Your task to perform on an android device: Open the calendar and show me this week's events? Image 0: 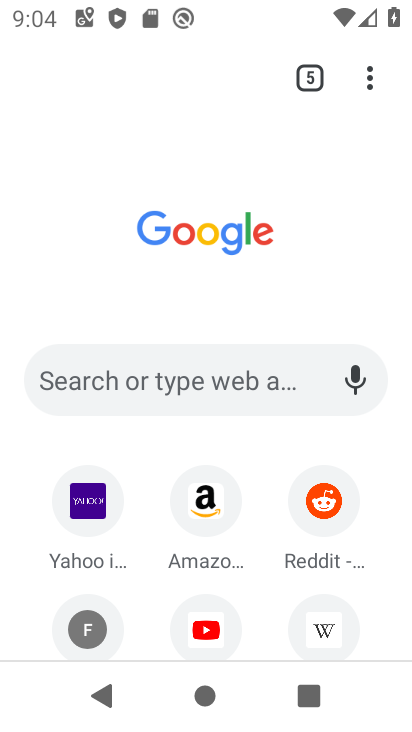
Step 0: press back button
Your task to perform on an android device: Open the calendar and show me this week's events? Image 1: 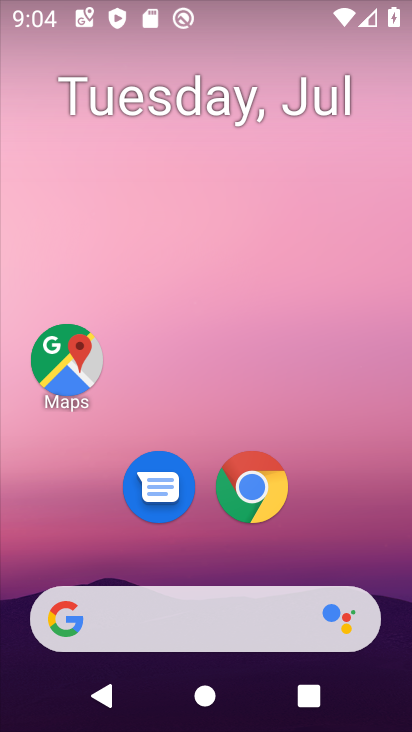
Step 1: drag from (179, 580) to (255, 37)
Your task to perform on an android device: Open the calendar and show me this week's events? Image 2: 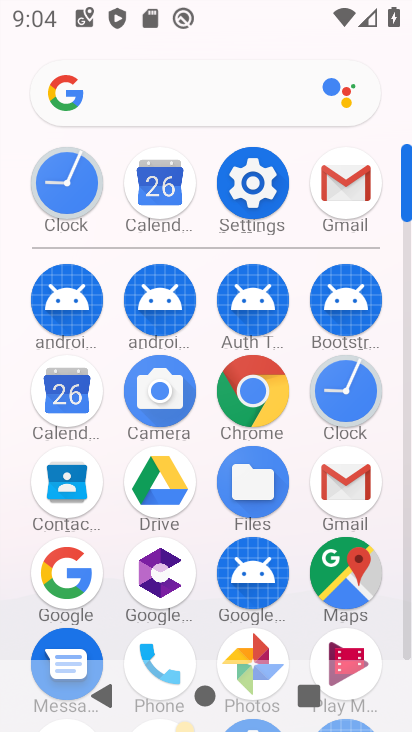
Step 2: click (48, 382)
Your task to perform on an android device: Open the calendar and show me this week's events? Image 3: 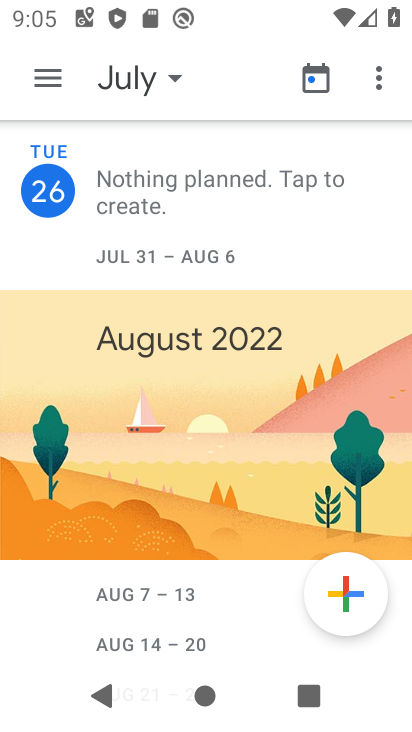
Step 3: click (176, 81)
Your task to perform on an android device: Open the calendar and show me this week's events? Image 4: 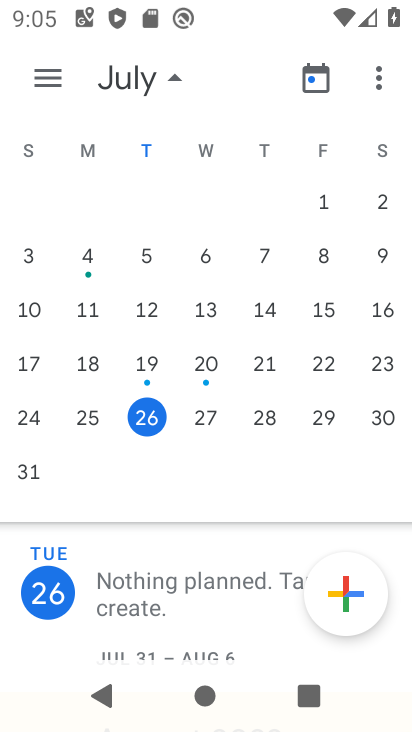
Step 4: click (148, 419)
Your task to perform on an android device: Open the calendar and show me this week's events? Image 5: 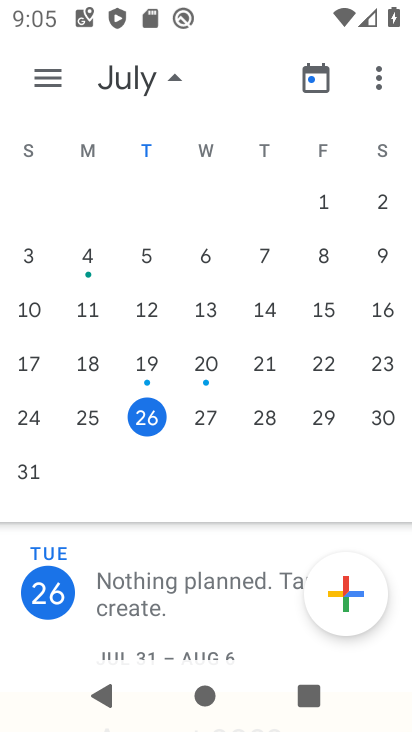
Step 5: task complete